Your task to perform on an android device: create a new album in the google photos Image 0: 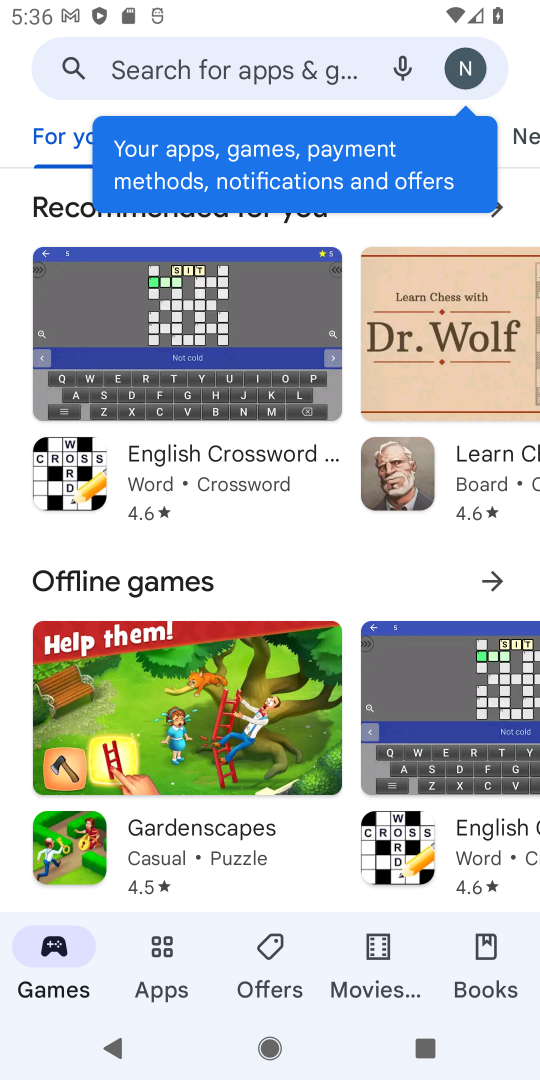
Step 0: press back button
Your task to perform on an android device: create a new album in the google photos Image 1: 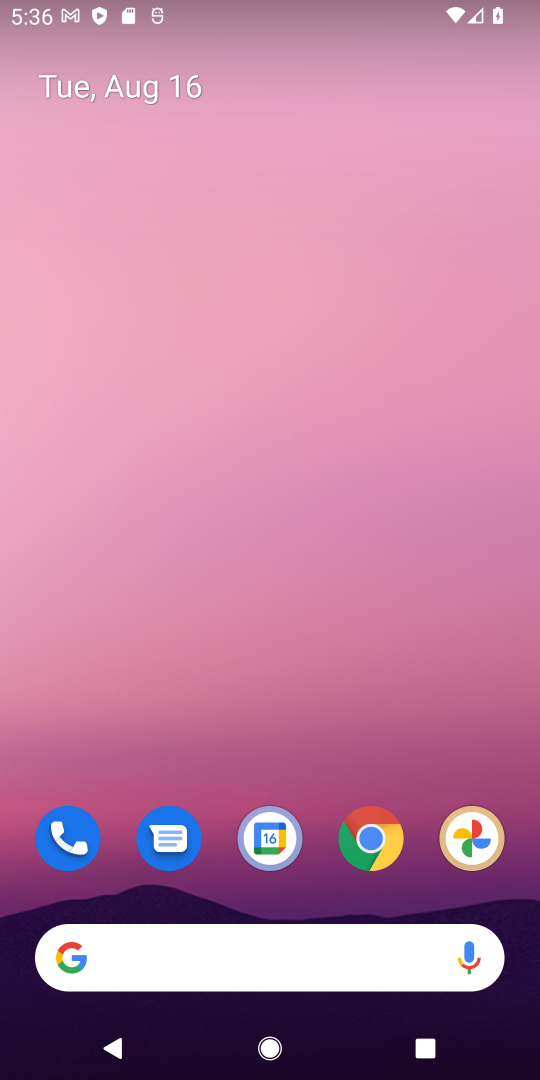
Step 1: click (473, 828)
Your task to perform on an android device: create a new album in the google photos Image 2: 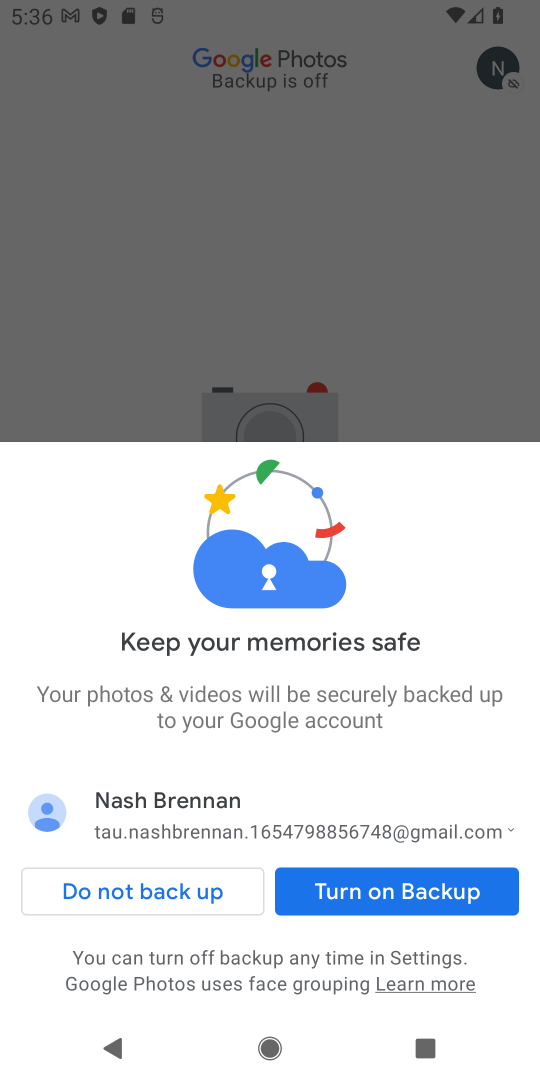
Step 2: click (175, 896)
Your task to perform on an android device: create a new album in the google photos Image 3: 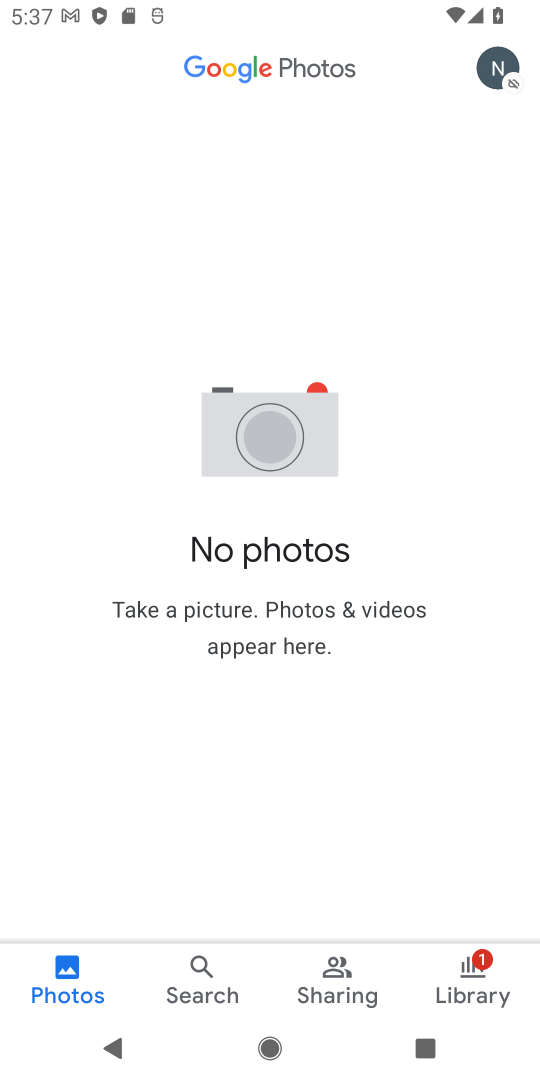
Step 3: task complete